Your task to perform on an android device: check storage Image 0: 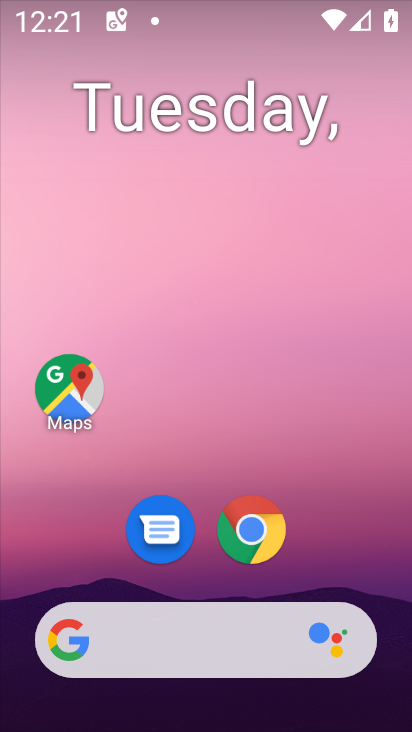
Step 0: drag from (186, 457) to (261, 0)
Your task to perform on an android device: check storage Image 1: 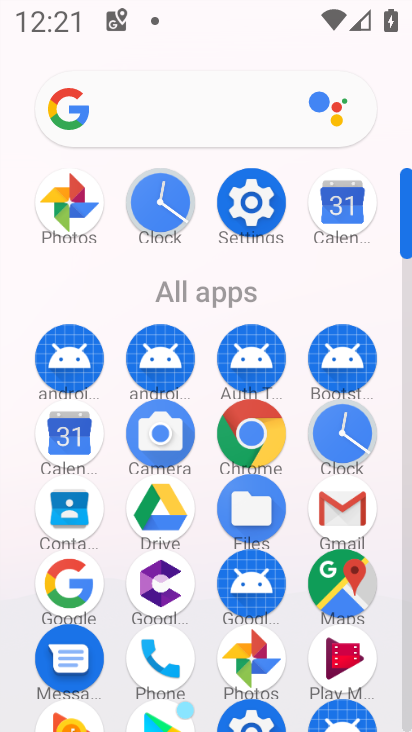
Step 1: click (258, 184)
Your task to perform on an android device: check storage Image 2: 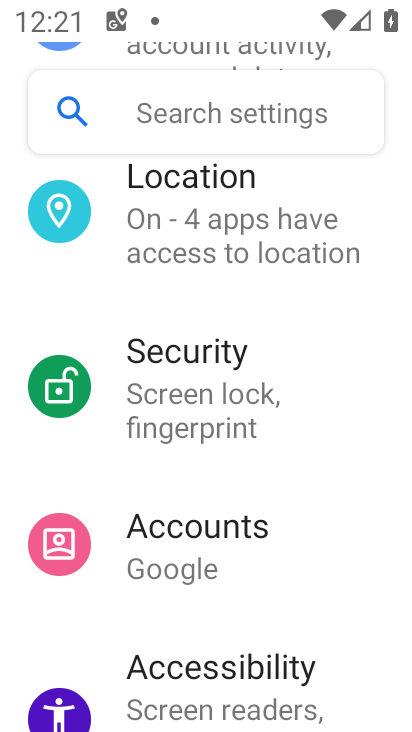
Step 2: drag from (204, 633) to (238, 70)
Your task to perform on an android device: check storage Image 3: 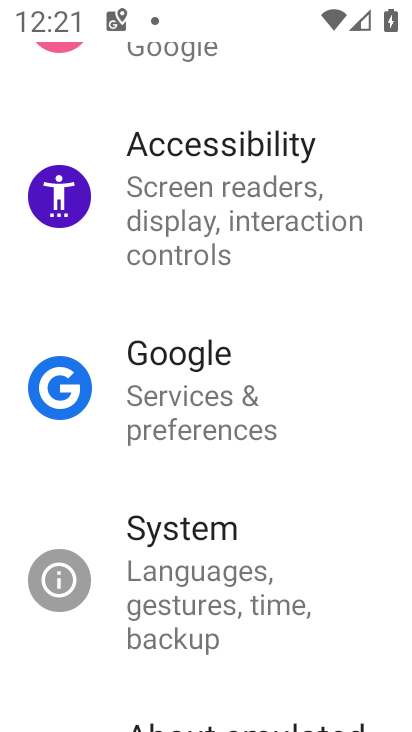
Step 3: drag from (187, 611) to (246, 214)
Your task to perform on an android device: check storage Image 4: 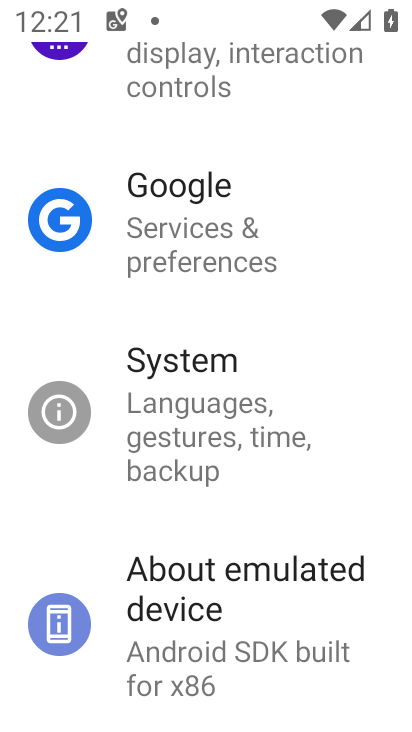
Step 4: drag from (176, 613) to (224, 155)
Your task to perform on an android device: check storage Image 5: 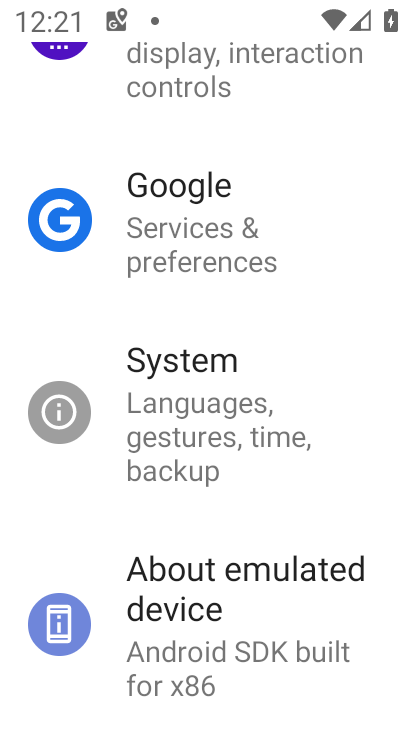
Step 5: drag from (193, 644) to (248, 170)
Your task to perform on an android device: check storage Image 6: 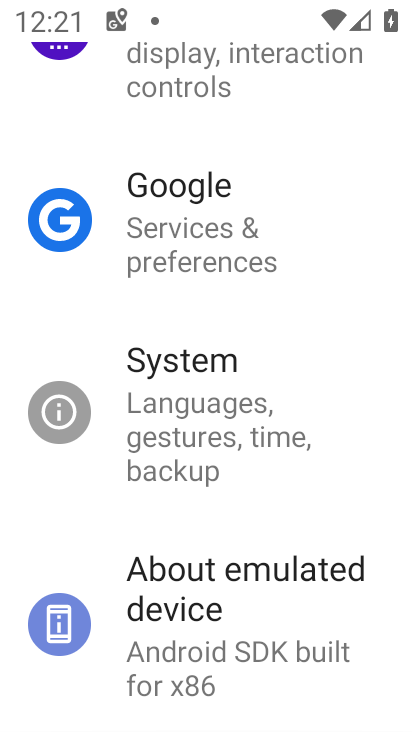
Step 6: drag from (262, 284) to (188, 714)
Your task to perform on an android device: check storage Image 7: 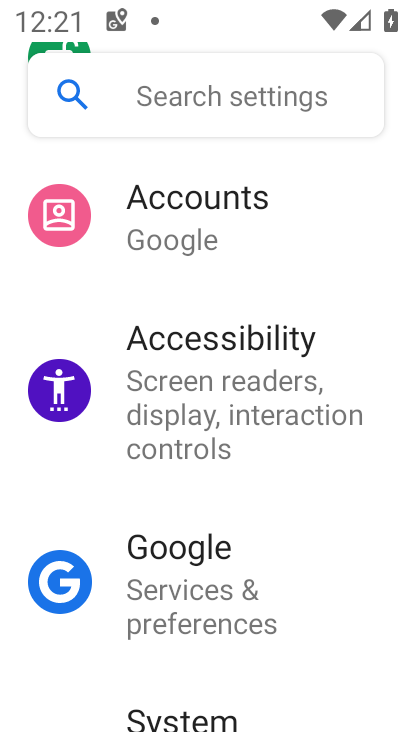
Step 7: drag from (224, 273) to (228, 726)
Your task to perform on an android device: check storage Image 8: 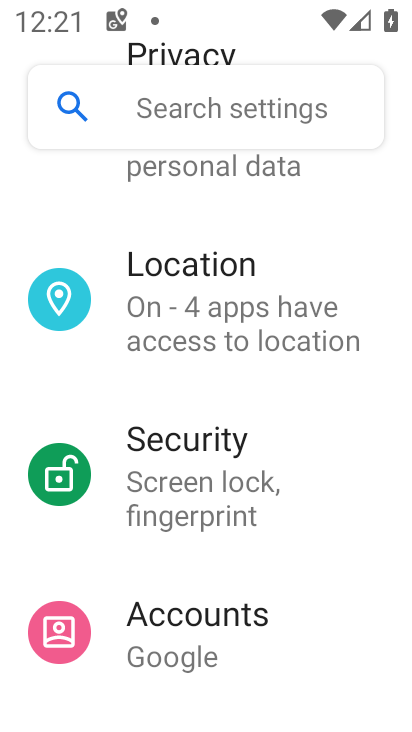
Step 8: drag from (221, 394) to (221, 613)
Your task to perform on an android device: check storage Image 9: 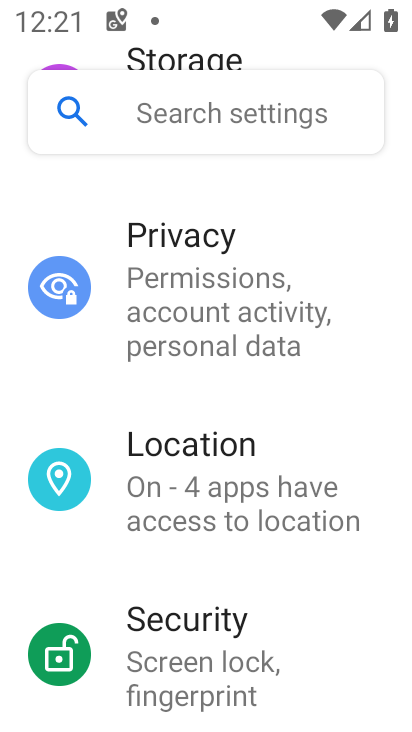
Step 9: drag from (230, 295) to (217, 702)
Your task to perform on an android device: check storage Image 10: 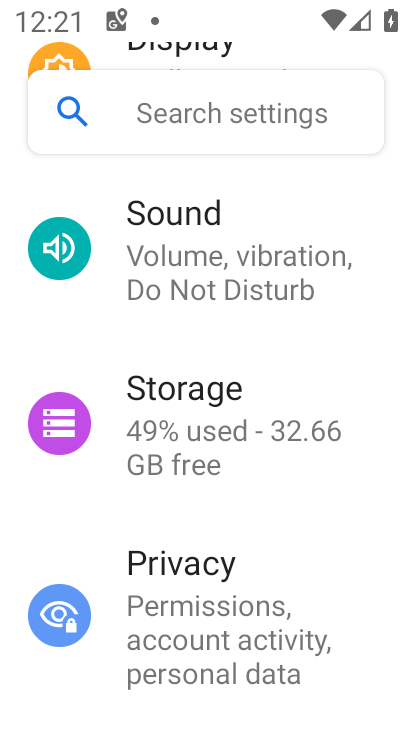
Step 10: click (220, 417)
Your task to perform on an android device: check storage Image 11: 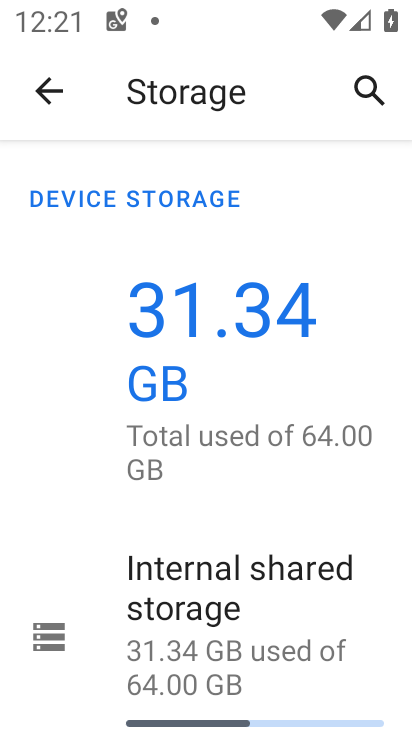
Step 11: task complete